Your task to perform on an android device: Go to calendar. Show me events next week Image 0: 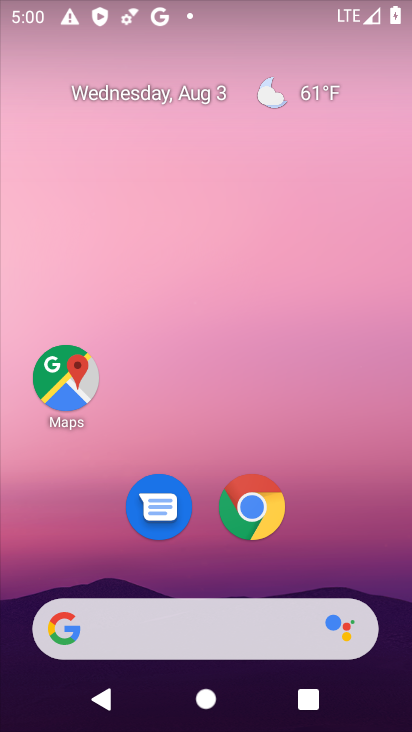
Step 0: drag from (352, 526) to (316, 52)
Your task to perform on an android device: Go to calendar. Show me events next week Image 1: 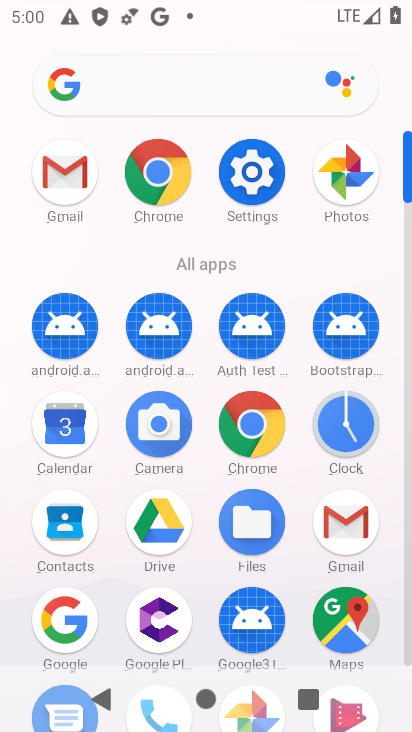
Step 1: click (58, 419)
Your task to perform on an android device: Go to calendar. Show me events next week Image 2: 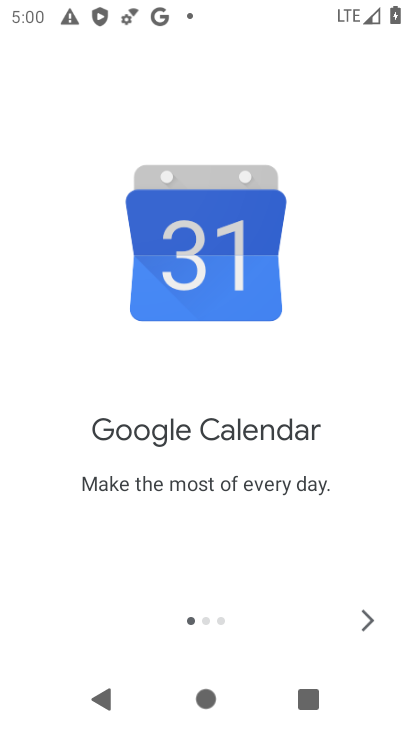
Step 2: click (367, 615)
Your task to perform on an android device: Go to calendar. Show me events next week Image 3: 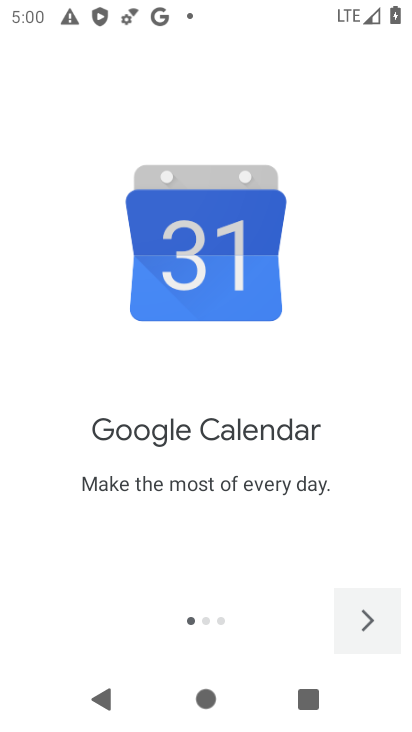
Step 3: click (367, 615)
Your task to perform on an android device: Go to calendar. Show me events next week Image 4: 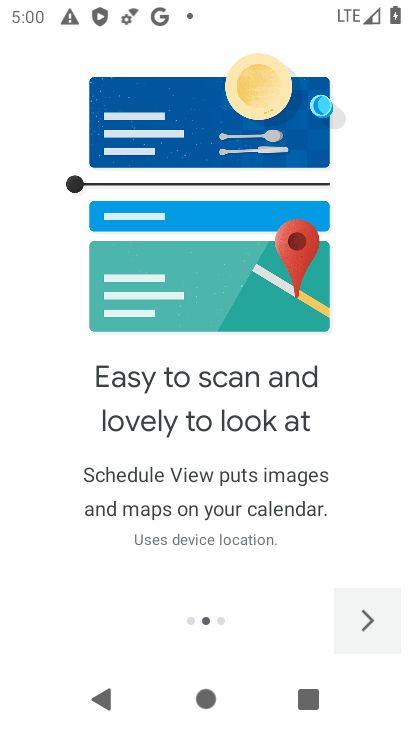
Step 4: click (367, 615)
Your task to perform on an android device: Go to calendar. Show me events next week Image 5: 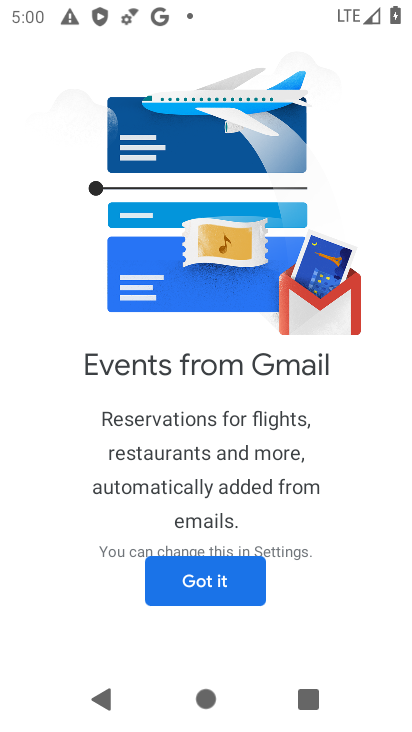
Step 5: click (367, 615)
Your task to perform on an android device: Go to calendar. Show me events next week Image 6: 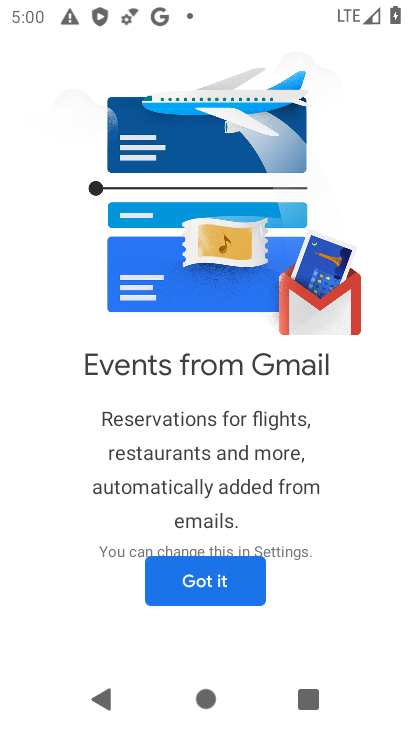
Step 6: click (178, 591)
Your task to perform on an android device: Go to calendar. Show me events next week Image 7: 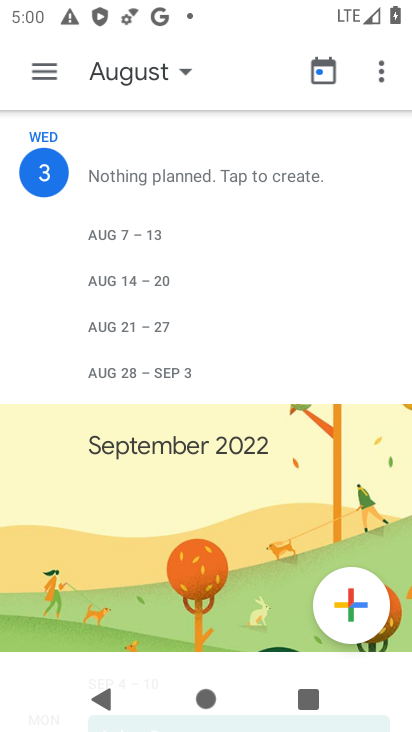
Step 7: click (127, 74)
Your task to perform on an android device: Go to calendar. Show me events next week Image 8: 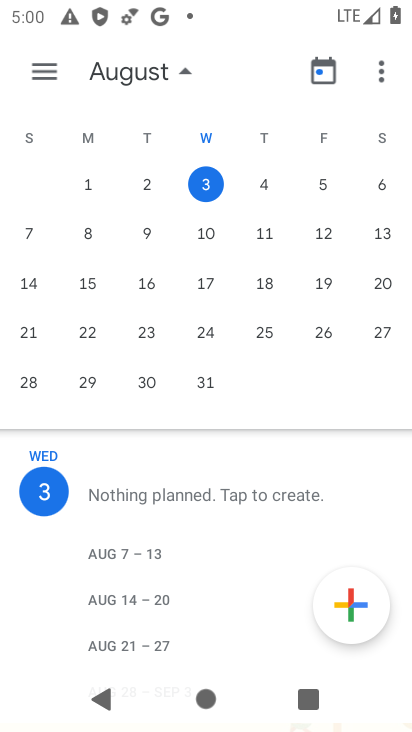
Step 8: drag from (391, 265) to (69, 239)
Your task to perform on an android device: Go to calendar. Show me events next week Image 9: 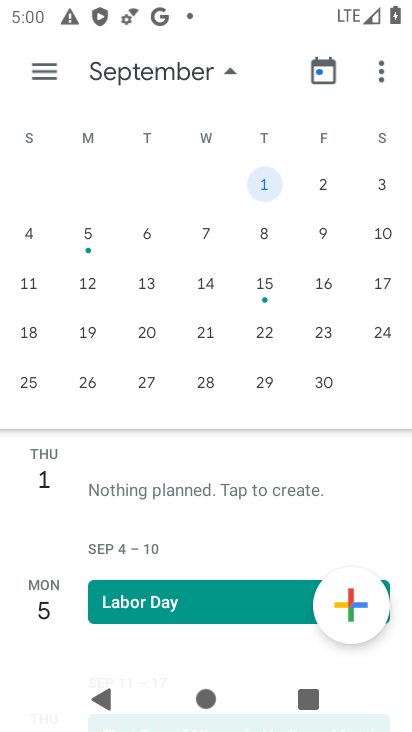
Step 9: drag from (51, 238) to (405, 265)
Your task to perform on an android device: Go to calendar. Show me events next week Image 10: 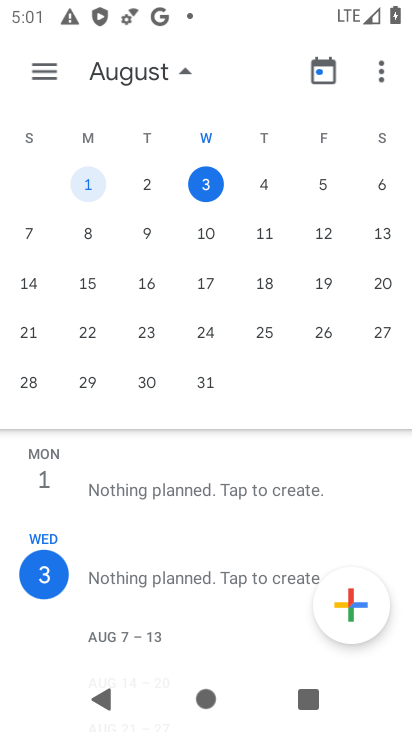
Step 10: click (207, 230)
Your task to perform on an android device: Go to calendar. Show me events next week Image 11: 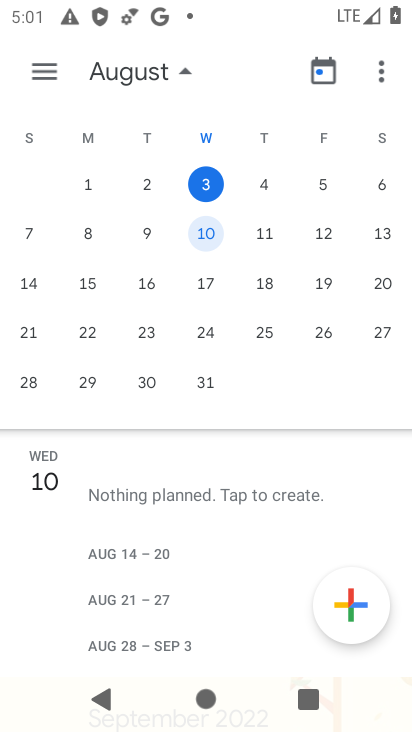
Step 11: click (55, 60)
Your task to perform on an android device: Go to calendar. Show me events next week Image 12: 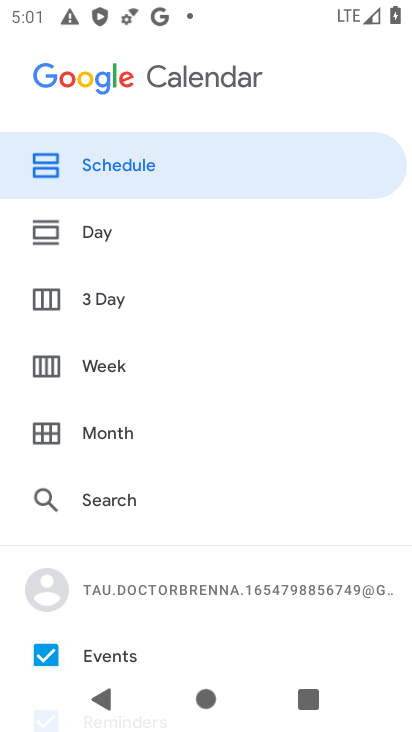
Step 12: click (106, 362)
Your task to perform on an android device: Go to calendar. Show me events next week Image 13: 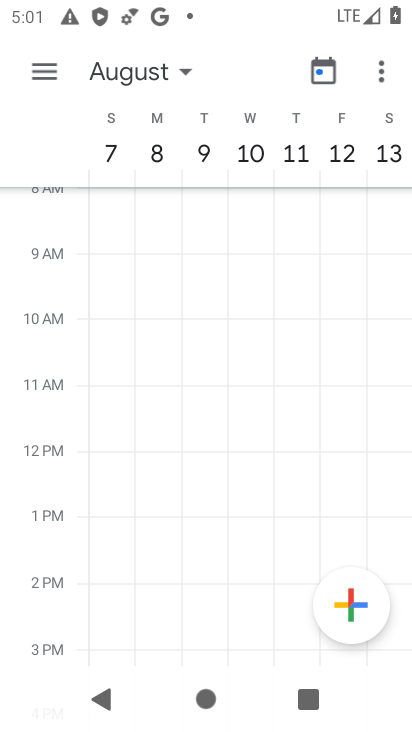
Step 13: task complete